Your task to perform on an android device: Open Google Chrome Image 0: 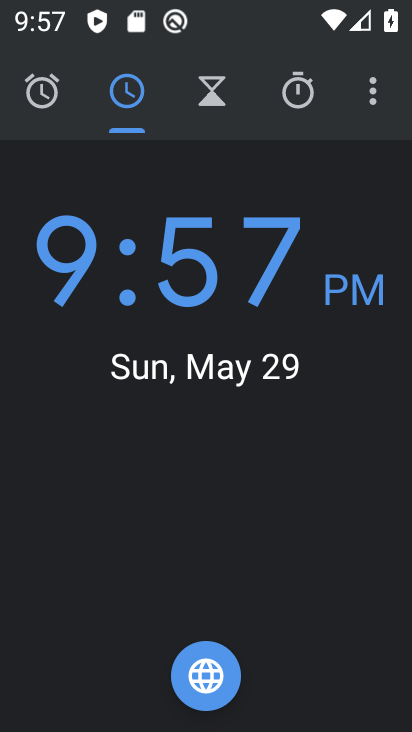
Step 0: press home button
Your task to perform on an android device: Open Google Chrome Image 1: 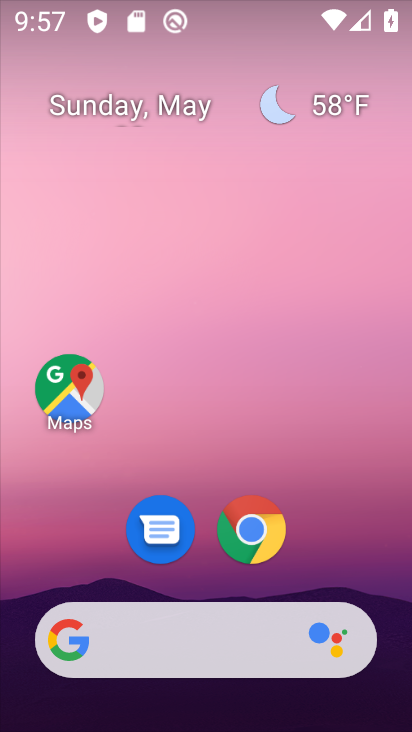
Step 1: click (236, 524)
Your task to perform on an android device: Open Google Chrome Image 2: 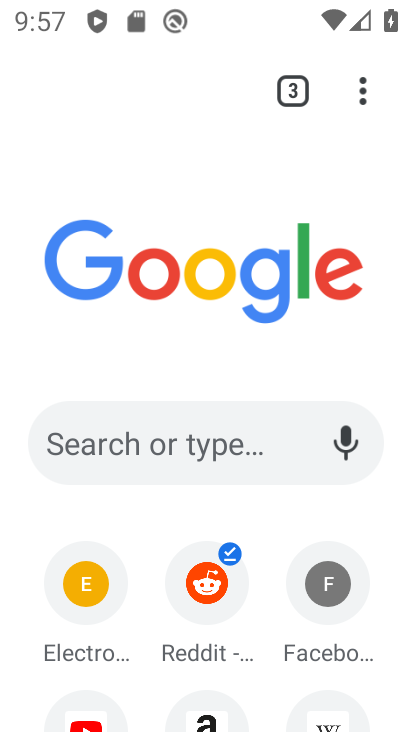
Step 2: task complete